Your task to perform on an android device: Open settings on Google Maps Image 0: 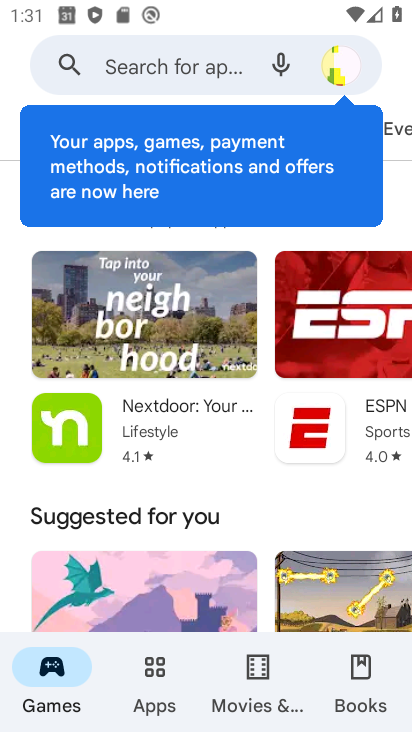
Step 0: press home button
Your task to perform on an android device: Open settings on Google Maps Image 1: 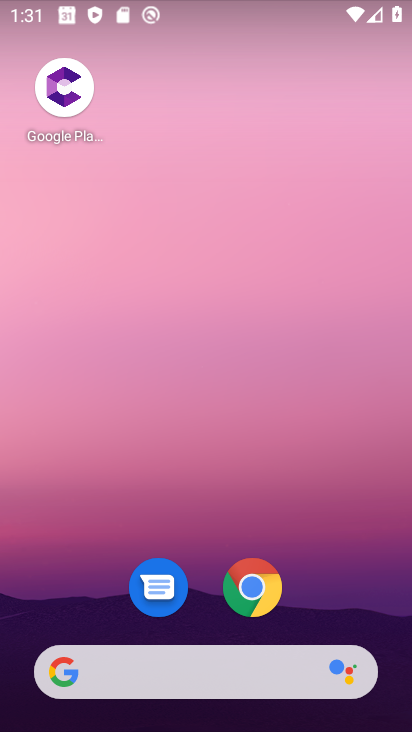
Step 1: drag from (88, 634) to (193, 59)
Your task to perform on an android device: Open settings on Google Maps Image 2: 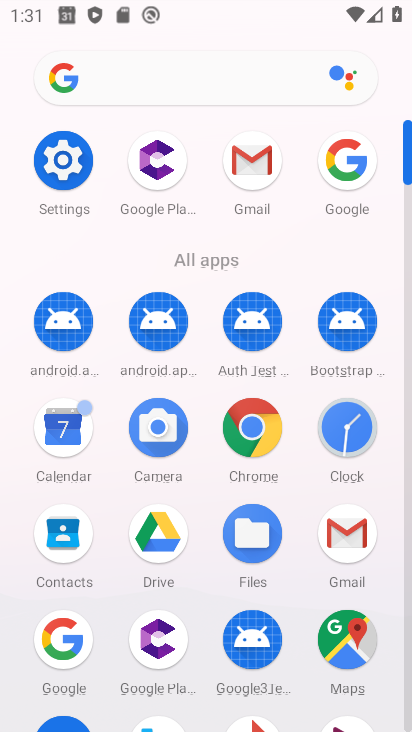
Step 2: click (333, 641)
Your task to perform on an android device: Open settings on Google Maps Image 3: 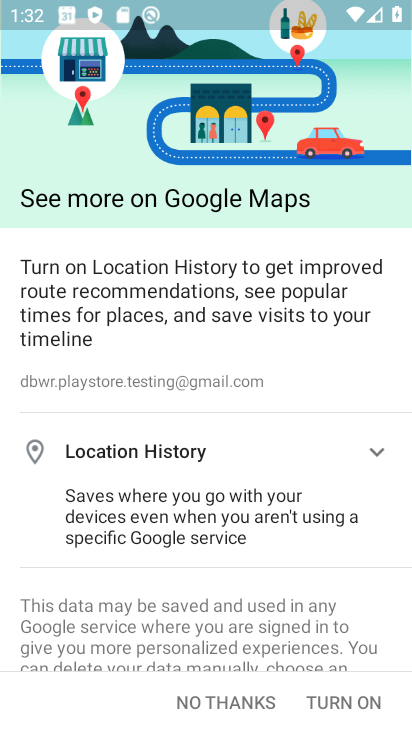
Step 3: click (246, 703)
Your task to perform on an android device: Open settings on Google Maps Image 4: 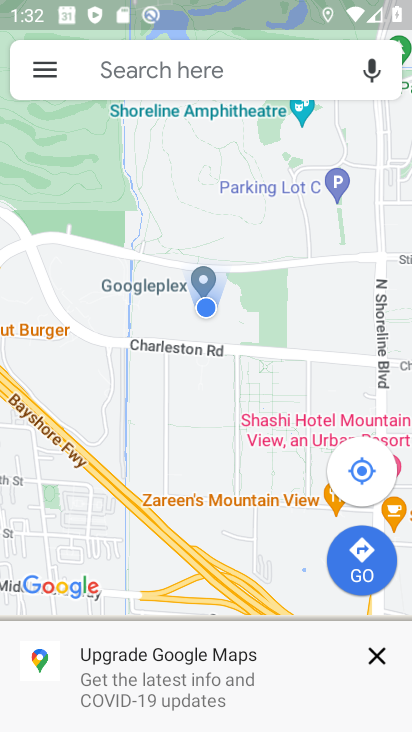
Step 4: click (44, 93)
Your task to perform on an android device: Open settings on Google Maps Image 5: 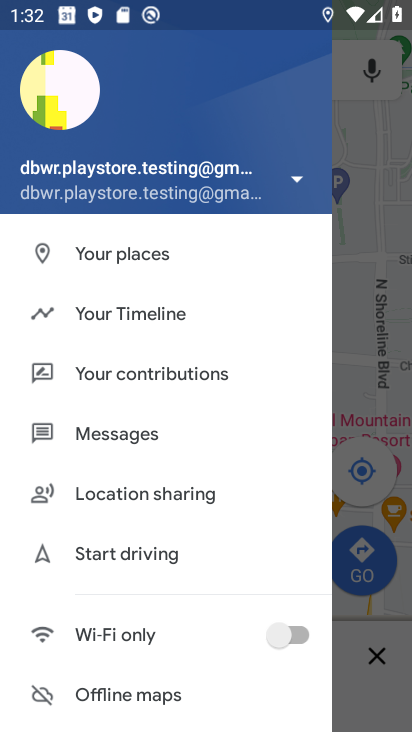
Step 5: drag from (127, 649) to (230, 184)
Your task to perform on an android device: Open settings on Google Maps Image 6: 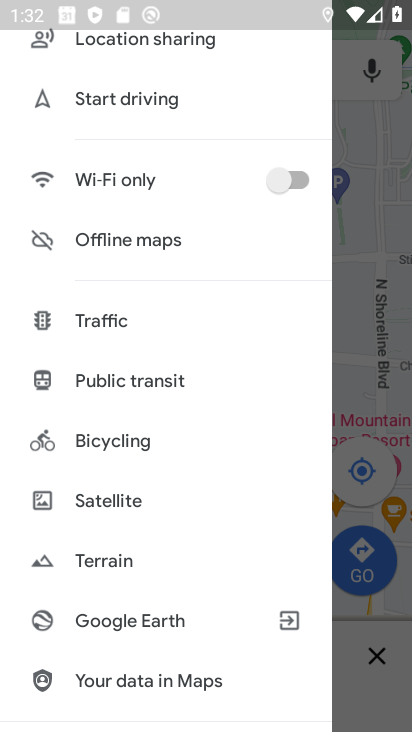
Step 6: drag from (157, 686) to (232, 374)
Your task to perform on an android device: Open settings on Google Maps Image 7: 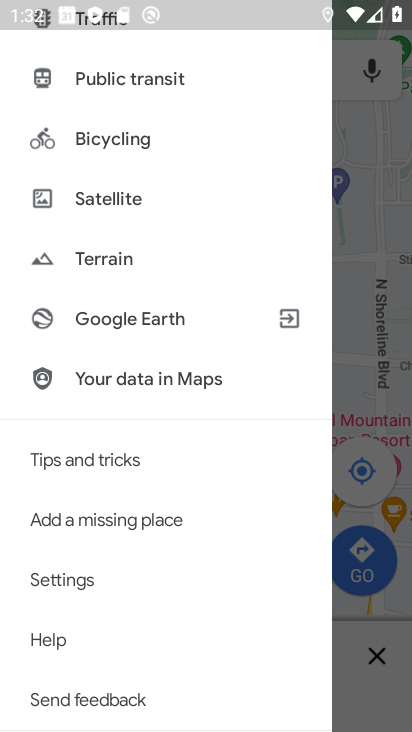
Step 7: click (95, 592)
Your task to perform on an android device: Open settings on Google Maps Image 8: 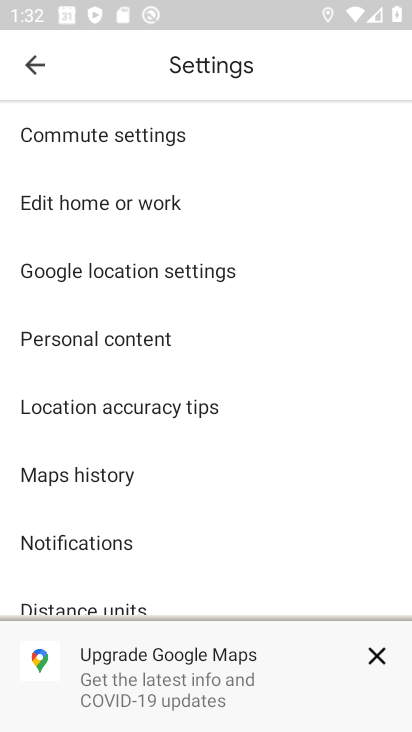
Step 8: task complete